Your task to perform on an android device: change alarm snooze length Image 0: 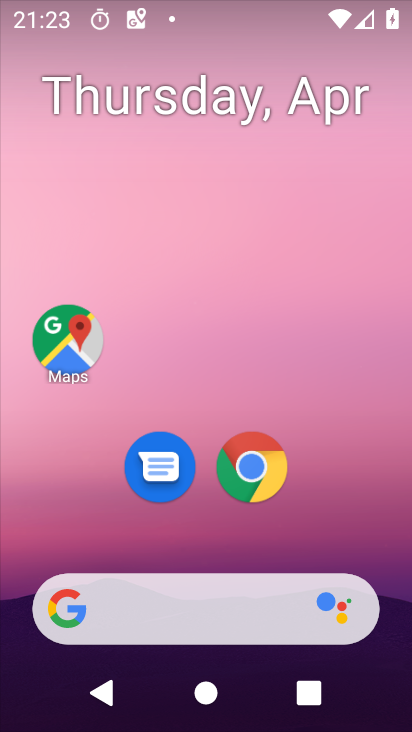
Step 0: drag from (211, 557) to (146, 42)
Your task to perform on an android device: change alarm snooze length Image 1: 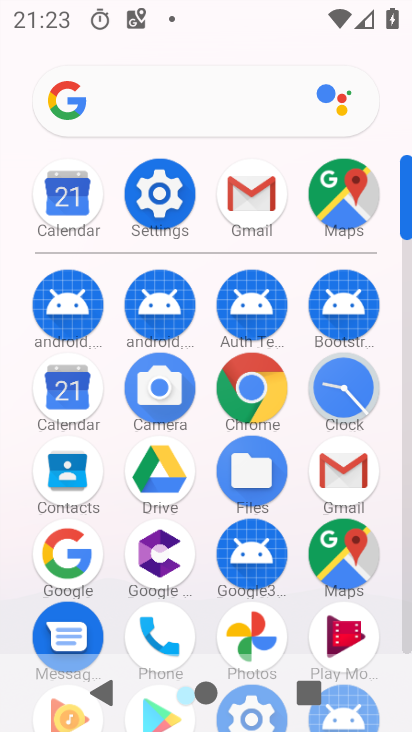
Step 1: click (351, 403)
Your task to perform on an android device: change alarm snooze length Image 2: 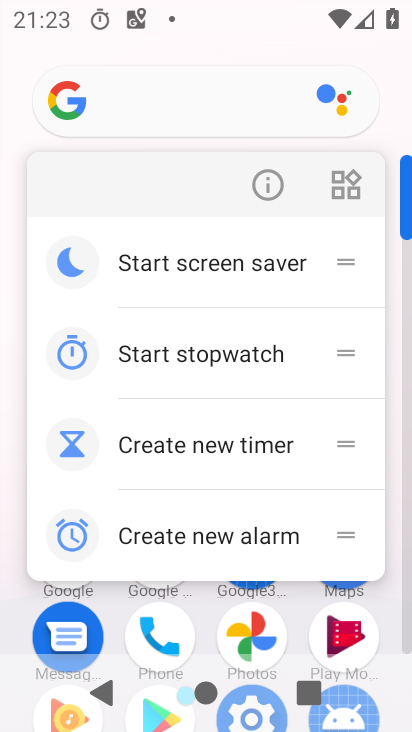
Step 2: click (393, 350)
Your task to perform on an android device: change alarm snooze length Image 3: 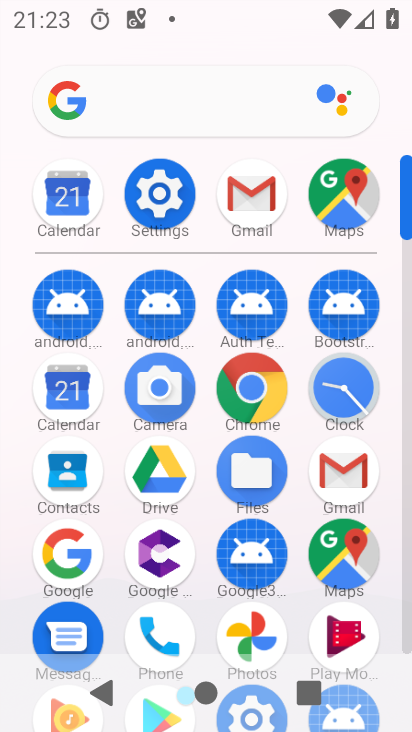
Step 3: click (360, 369)
Your task to perform on an android device: change alarm snooze length Image 4: 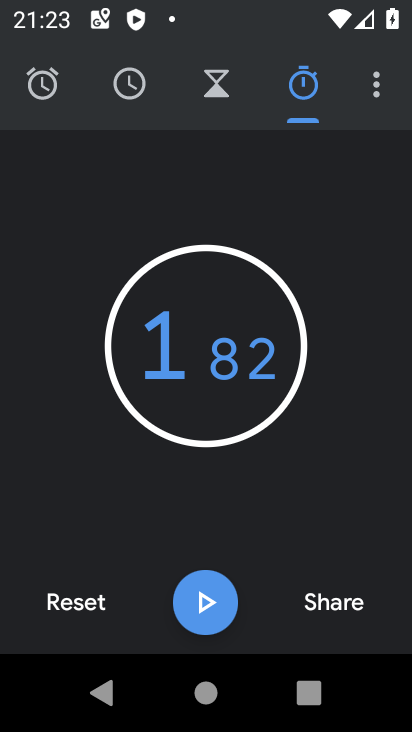
Step 4: click (381, 83)
Your task to perform on an android device: change alarm snooze length Image 5: 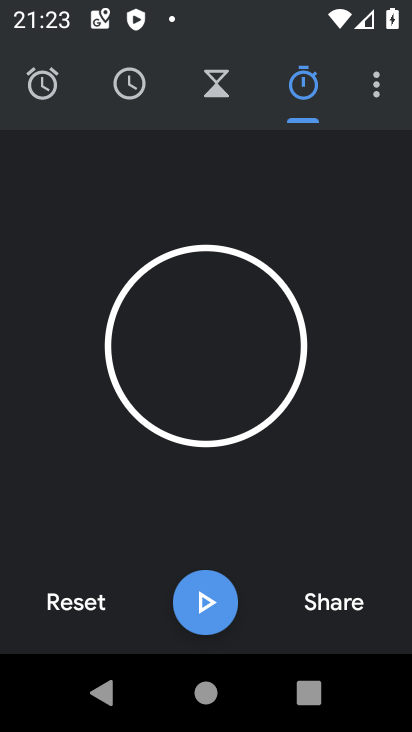
Step 5: click (373, 102)
Your task to perform on an android device: change alarm snooze length Image 6: 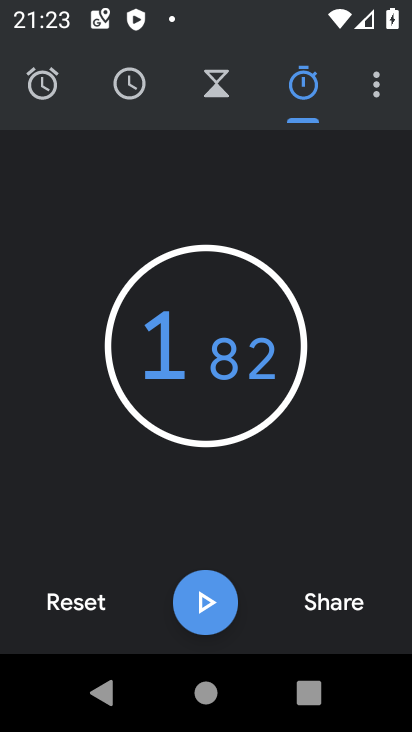
Step 6: click (343, 159)
Your task to perform on an android device: change alarm snooze length Image 7: 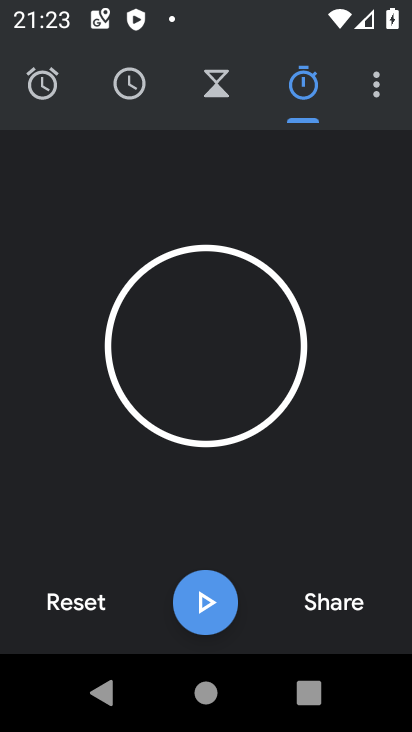
Step 7: click (375, 83)
Your task to perform on an android device: change alarm snooze length Image 8: 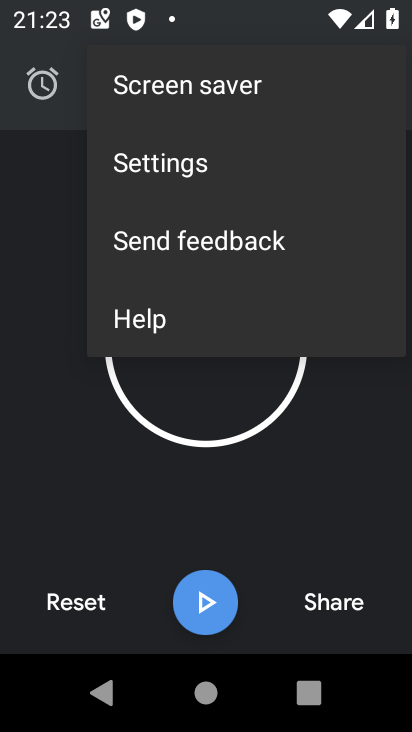
Step 8: click (193, 172)
Your task to perform on an android device: change alarm snooze length Image 9: 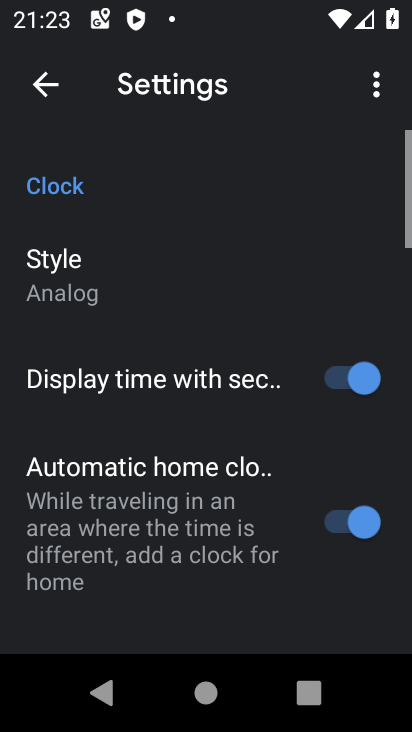
Step 9: drag from (160, 494) to (130, 111)
Your task to perform on an android device: change alarm snooze length Image 10: 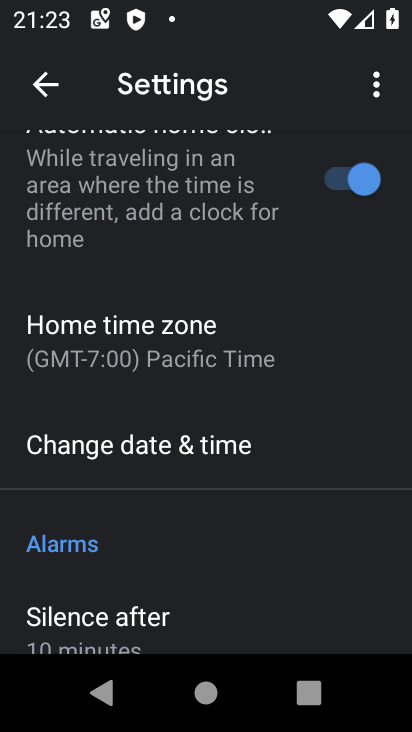
Step 10: drag from (176, 582) to (146, 134)
Your task to perform on an android device: change alarm snooze length Image 11: 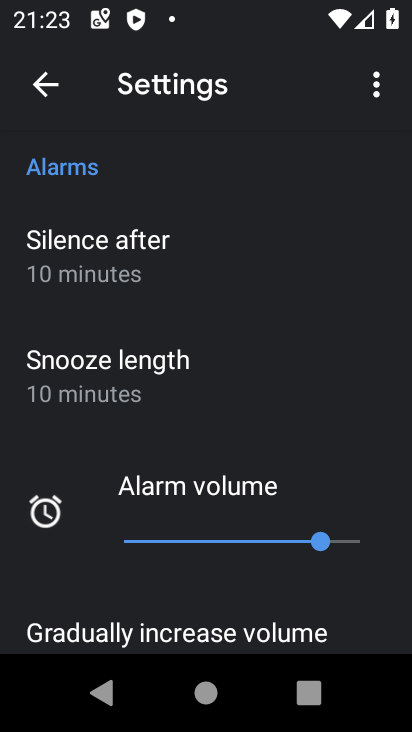
Step 11: click (130, 378)
Your task to perform on an android device: change alarm snooze length Image 12: 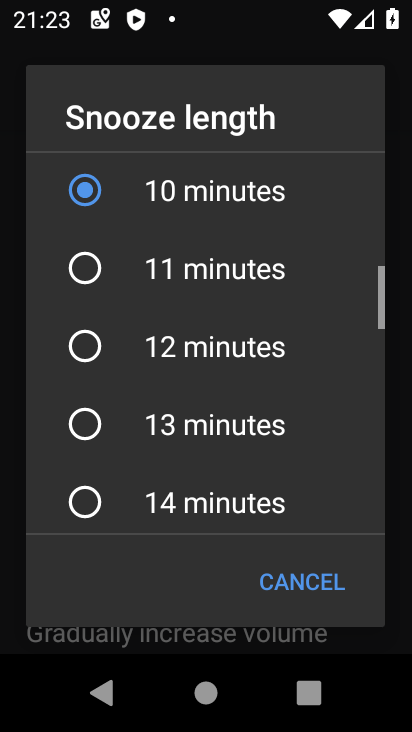
Step 12: click (149, 260)
Your task to perform on an android device: change alarm snooze length Image 13: 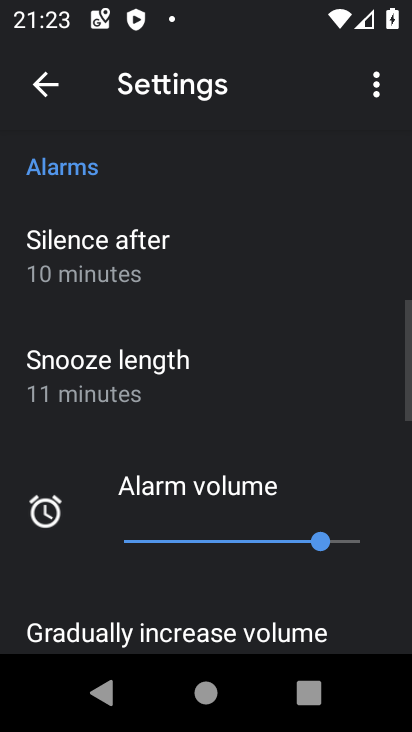
Step 13: task complete